Your task to perform on an android device: make emails show in primary in the gmail app Image 0: 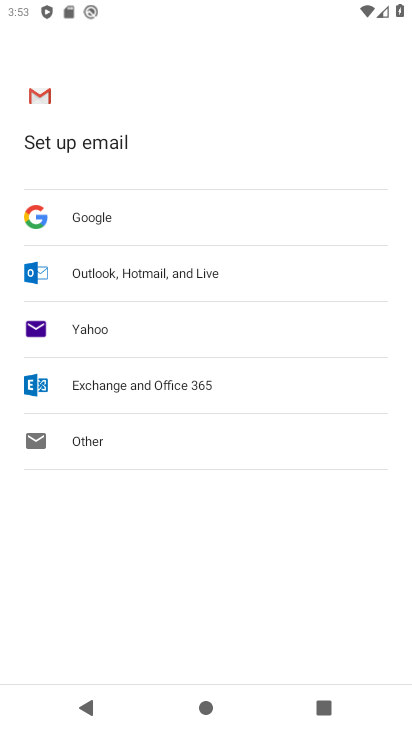
Step 0: press home button
Your task to perform on an android device: make emails show in primary in the gmail app Image 1: 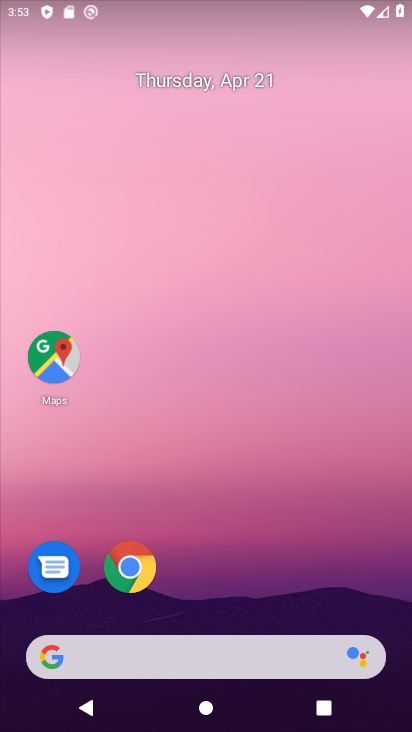
Step 1: drag from (221, 581) to (298, 0)
Your task to perform on an android device: make emails show in primary in the gmail app Image 2: 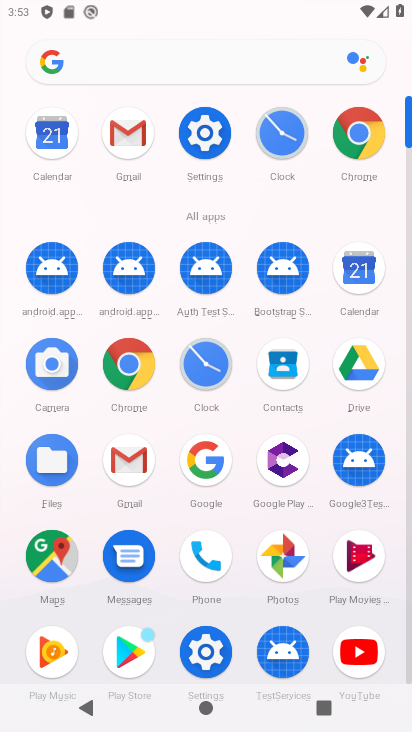
Step 2: click (117, 462)
Your task to perform on an android device: make emails show in primary in the gmail app Image 3: 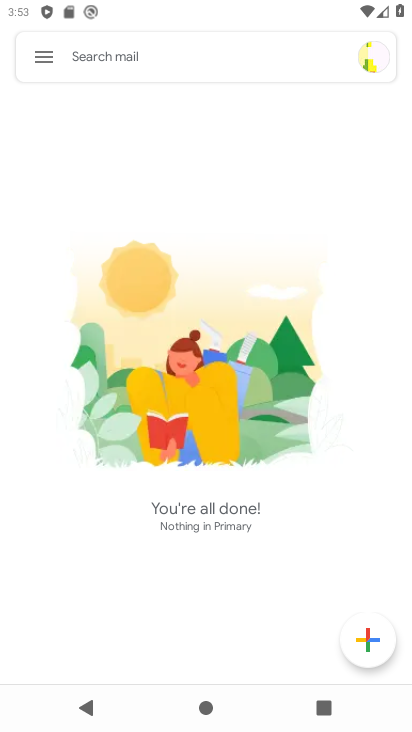
Step 3: click (41, 57)
Your task to perform on an android device: make emails show in primary in the gmail app Image 4: 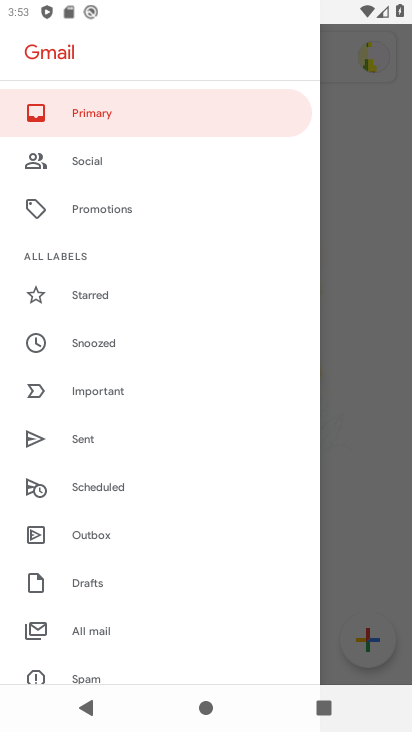
Step 4: drag from (141, 653) to (162, 192)
Your task to perform on an android device: make emails show in primary in the gmail app Image 5: 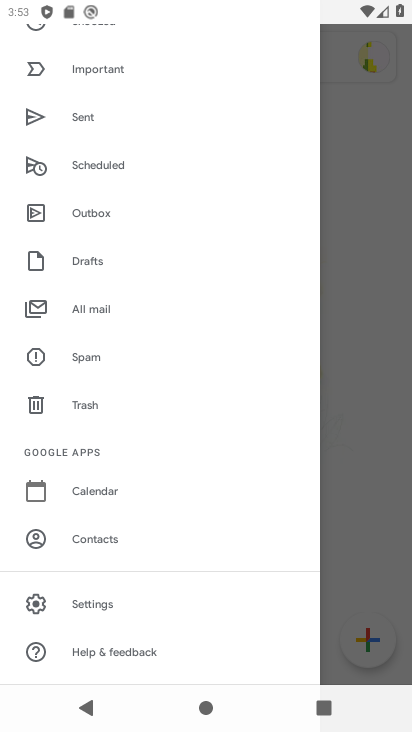
Step 5: click (101, 603)
Your task to perform on an android device: make emails show in primary in the gmail app Image 6: 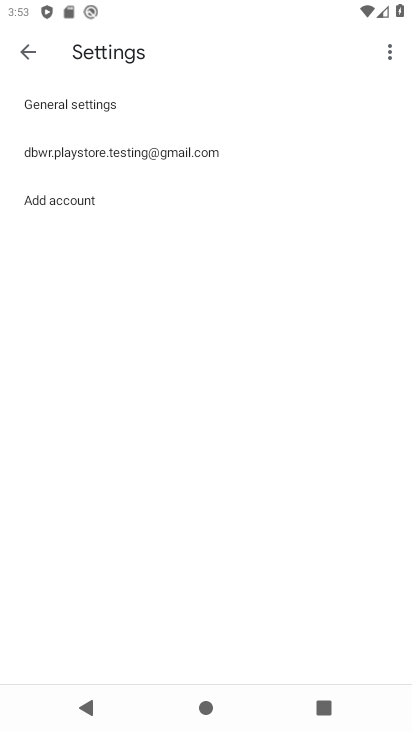
Step 6: click (128, 159)
Your task to perform on an android device: make emails show in primary in the gmail app Image 7: 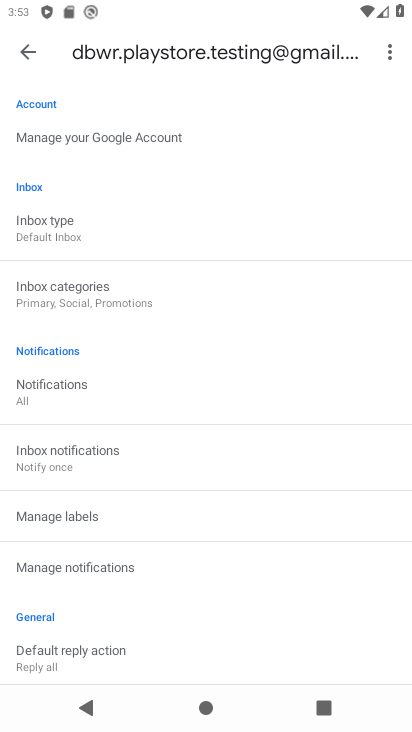
Step 7: click (116, 297)
Your task to perform on an android device: make emails show in primary in the gmail app Image 8: 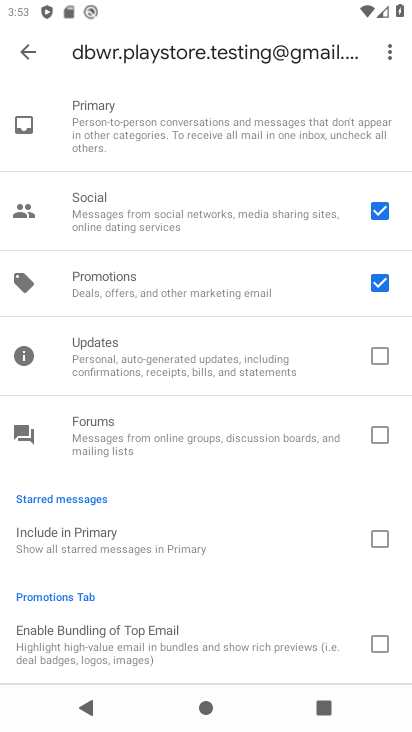
Step 8: click (386, 218)
Your task to perform on an android device: make emails show in primary in the gmail app Image 9: 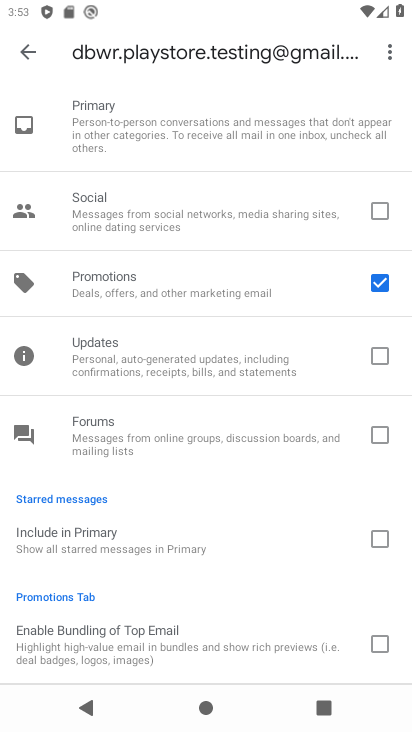
Step 9: click (377, 282)
Your task to perform on an android device: make emails show in primary in the gmail app Image 10: 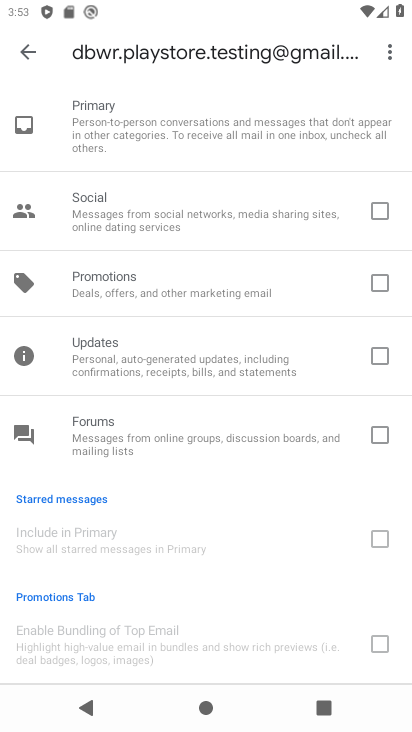
Step 10: task complete